Your task to perform on an android device: toggle notification dots Image 0: 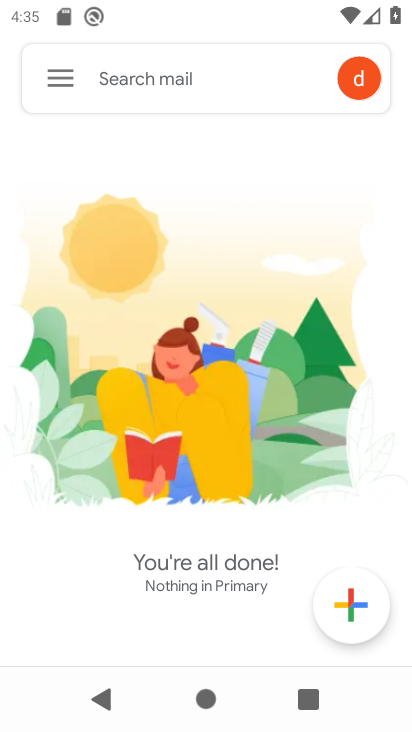
Step 0: press home button
Your task to perform on an android device: toggle notification dots Image 1: 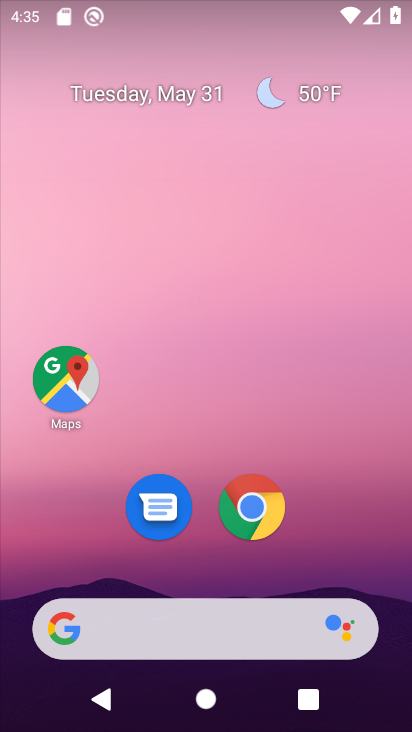
Step 1: drag from (233, 440) to (232, 15)
Your task to perform on an android device: toggle notification dots Image 2: 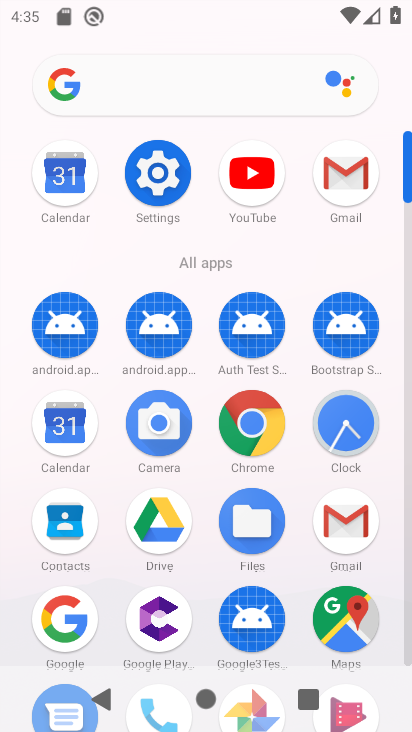
Step 2: click (169, 156)
Your task to perform on an android device: toggle notification dots Image 3: 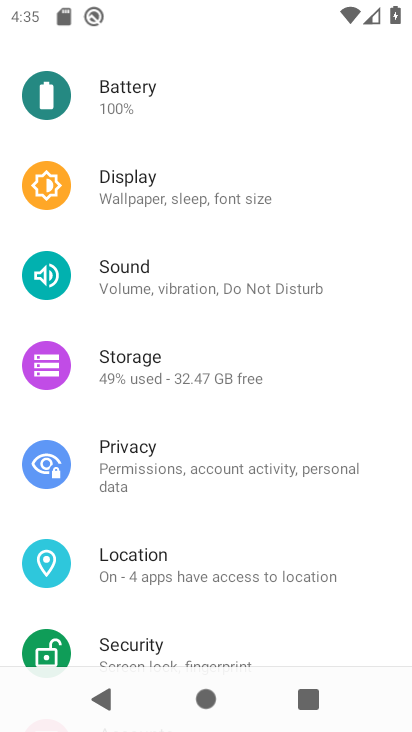
Step 3: drag from (169, 154) to (244, 526)
Your task to perform on an android device: toggle notification dots Image 4: 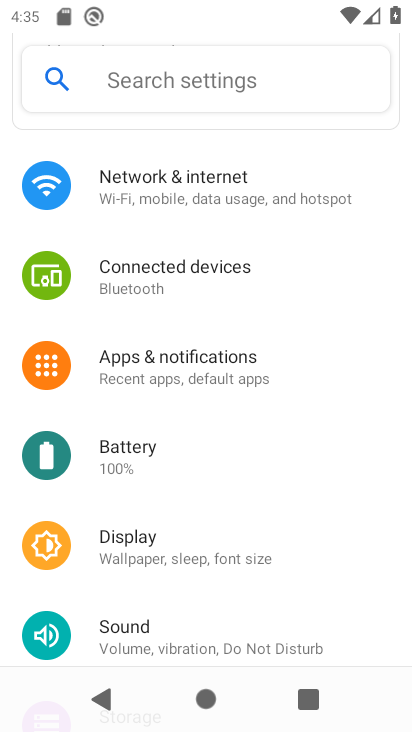
Step 4: click (208, 358)
Your task to perform on an android device: toggle notification dots Image 5: 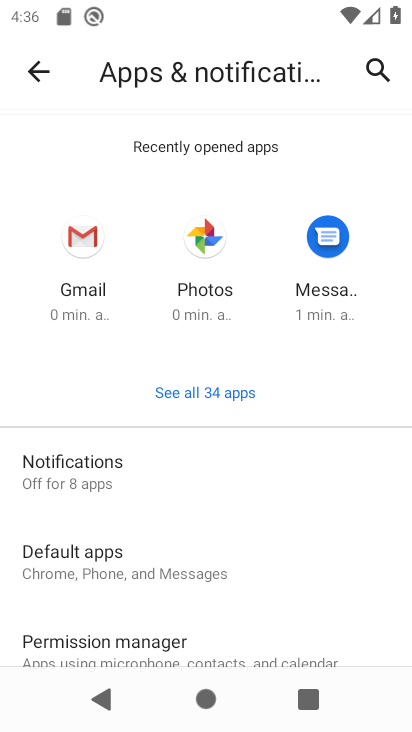
Step 5: click (184, 477)
Your task to perform on an android device: toggle notification dots Image 6: 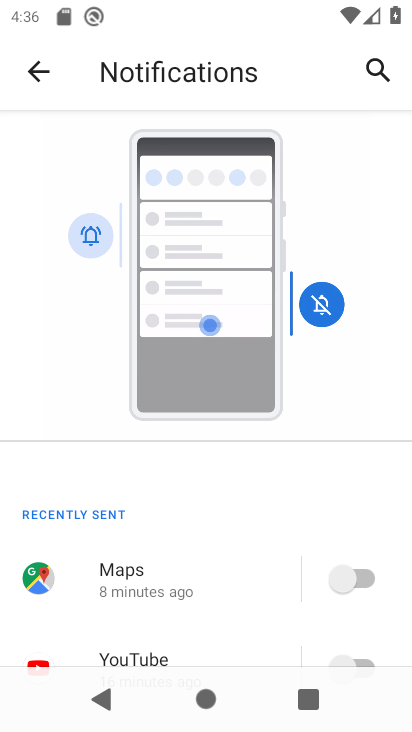
Step 6: drag from (185, 570) to (209, 171)
Your task to perform on an android device: toggle notification dots Image 7: 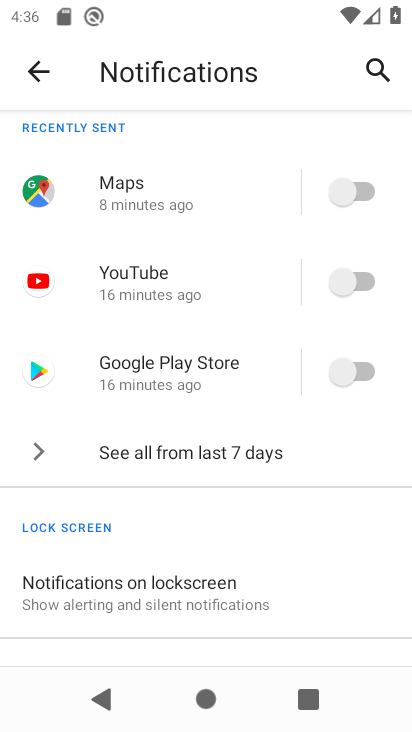
Step 7: drag from (204, 478) to (218, 235)
Your task to perform on an android device: toggle notification dots Image 8: 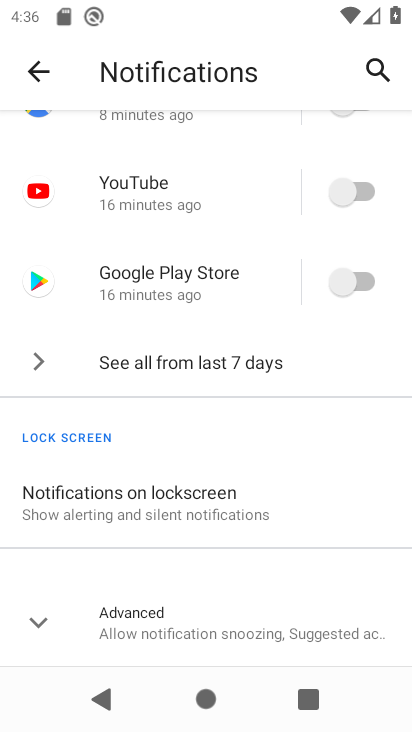
Step 8: click (35, 615)
Your task to perform on an android device: toggle notification dots Image 9: 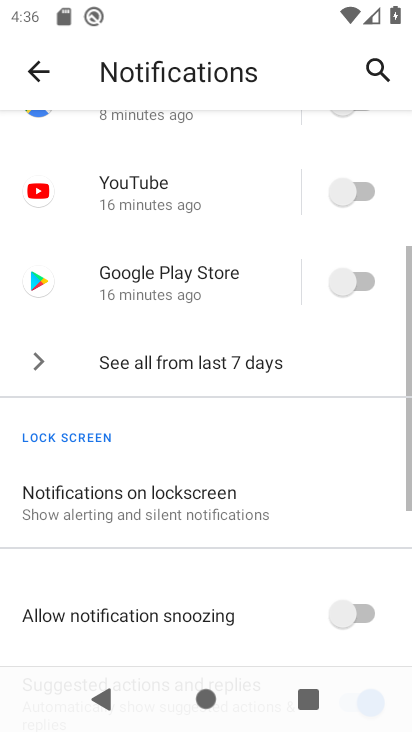
Step 9: drag from (211, 572) to (272, 246)
Your task to perform on an android device: toggle notification dots Image 10: 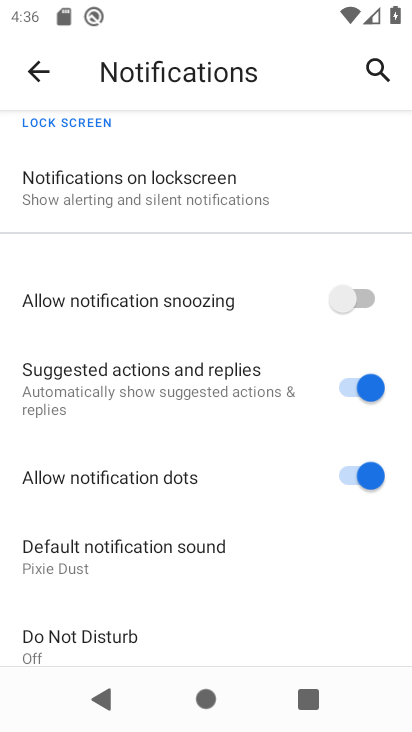
Step 10: click (360, 464)
Your task to perform on an android device: toggle notification dots Image 11: 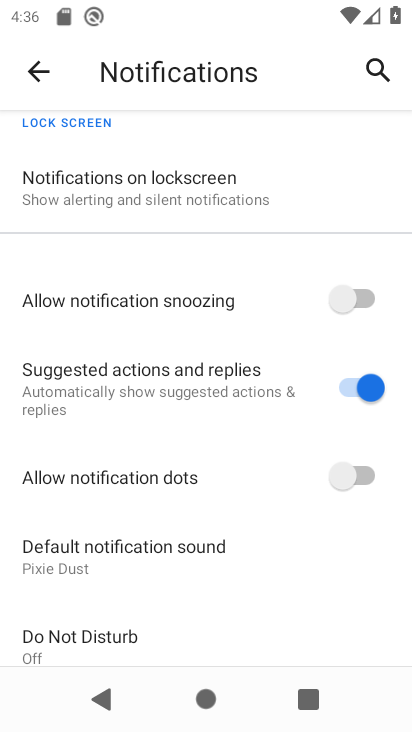
Step 11: task complete